Your task to perform on an android device: Open the map Image 0: 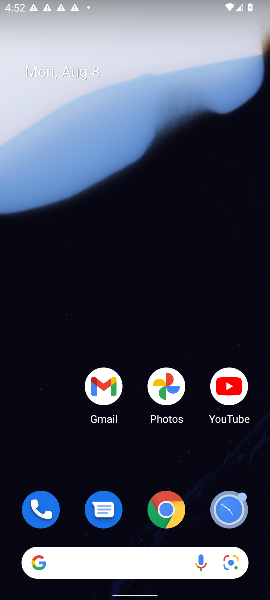
Step 0: drag from (122, 466) to (99, 45)
Your task to perform on an android device: Open the map Image 1: 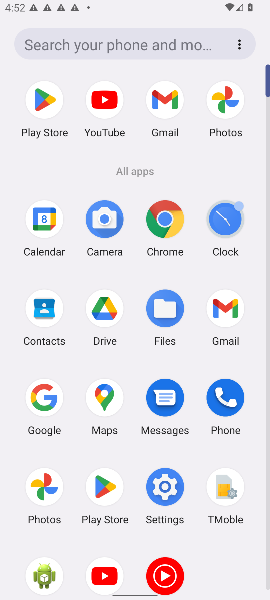
Step 1: click (99, 390)
Your task to perform on an android device: Open the map Image 2: 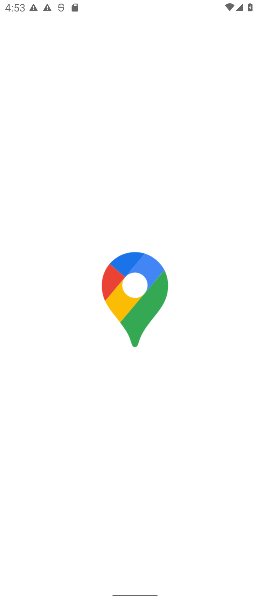
Step 2: task complete